Your task to perform on an android device: add a contact in the contacts app Image 0: 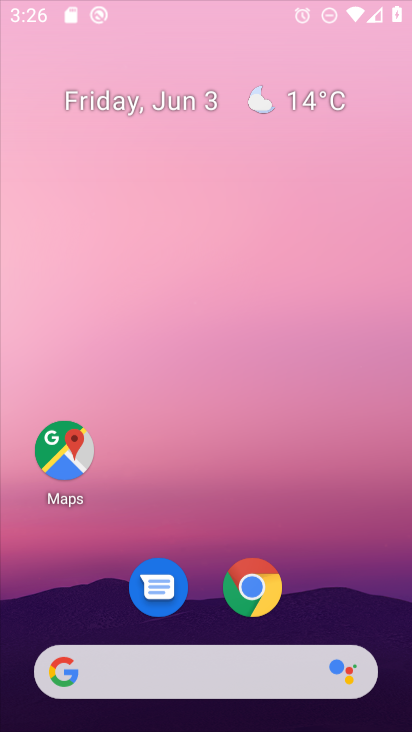
Step 0: click (228, 101)
Your task to perform on an android device: add a contact in the contacts app Image 1: 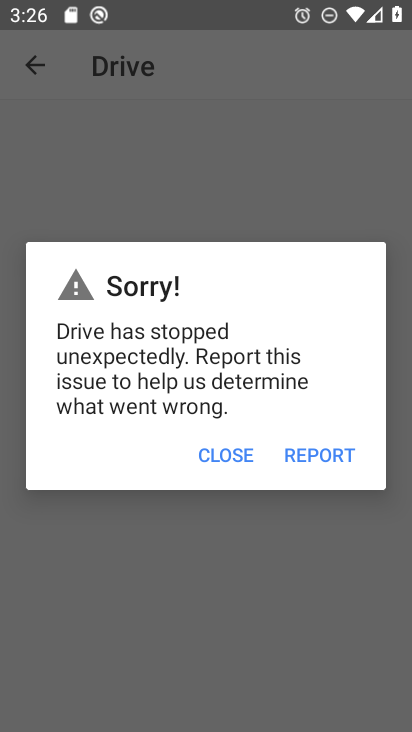
Step 1: press home button
Your task to perform on an android device: add a contact in the contacts app Image 2: 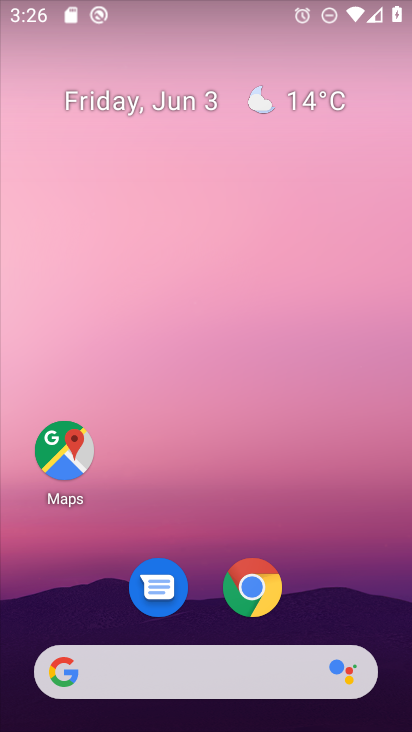
Step 2: drag from (247, 711) to (245, 63)
Your task to perform on an android device: add a contact in the contacts app Image 3: 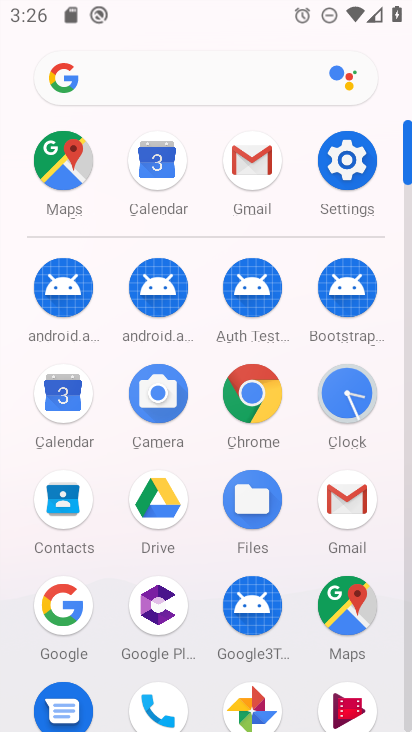
Step 3: click (74, 509)
Your task to perform on an android device: add a contact in the contacts app Image 4: 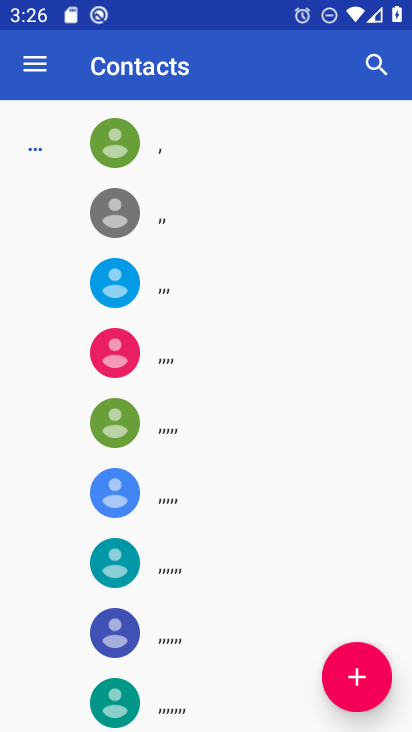
Step 4: click (349, 671)
Your task to perform on an android device: add a contact in the contacts app Image 5: 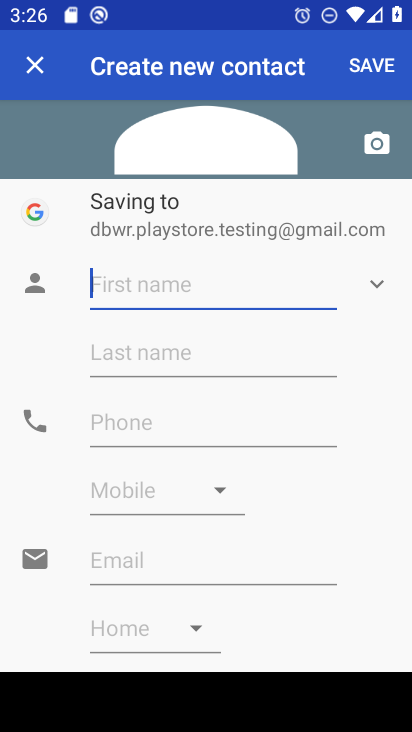
Step 5: type "entrance"
Your task to perform on an android device: add a contact in the contacts app Image 6: 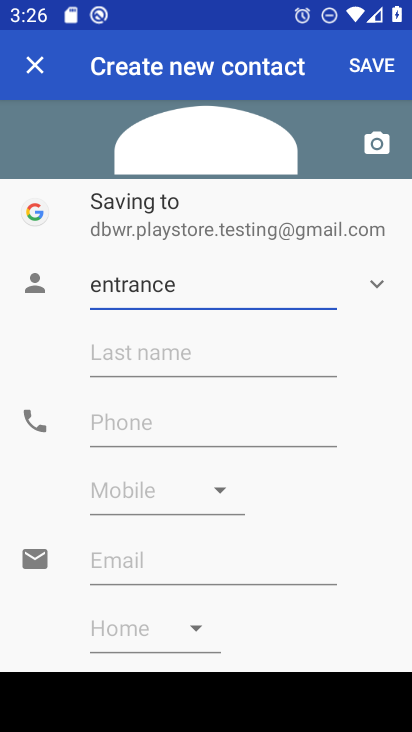
Step 6: click (178, 423)
Your task to perform on an android device: add a contact in the contacts app Image 7: 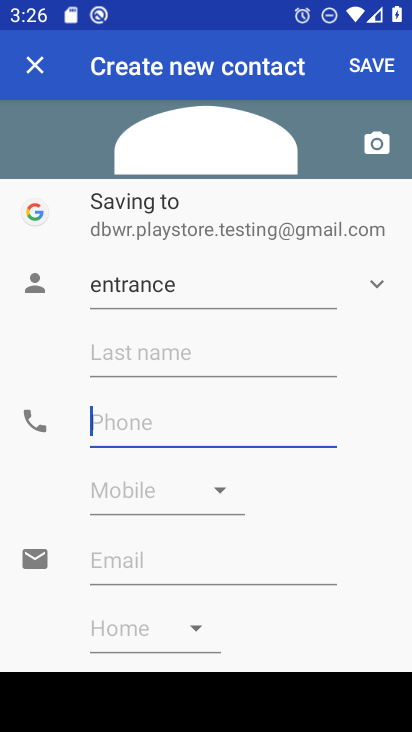
Step 7: type "88888"
Your task to perform on an android device: add a contact in the contacts app Image 8: 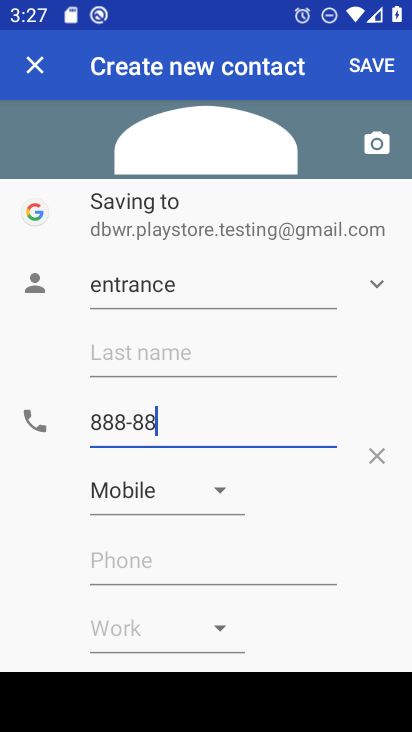
Step 8: click (377, 62)
Your task to perform on an android device: add a contact in the contacts app Image 9: 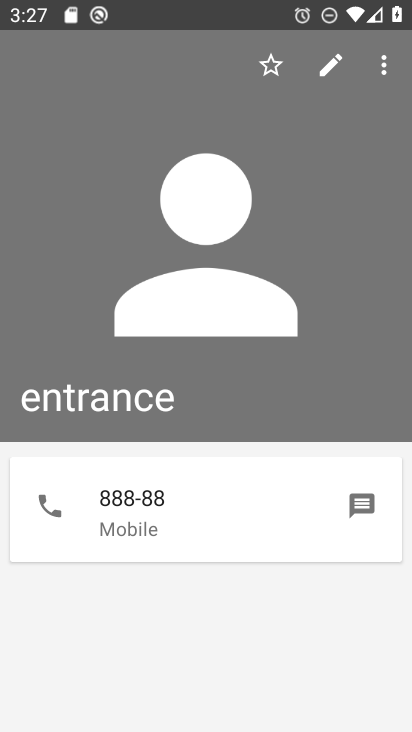
Step 9: task complete